Your task to perform on an android device: Open battery settings Image 0: 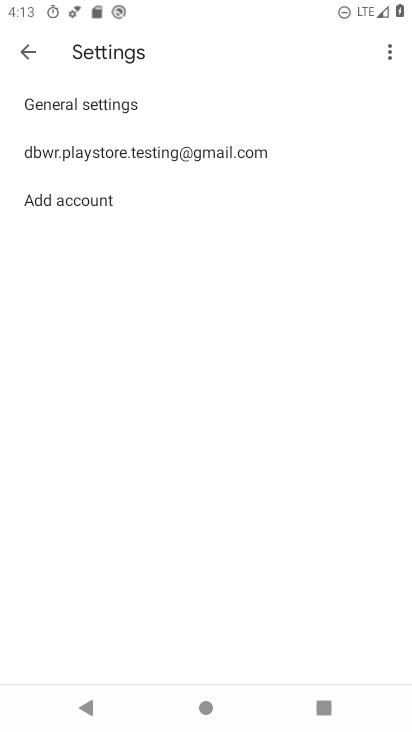
Step 0: press home button
Your task to perform on an android device: Open battery settings Image 1: 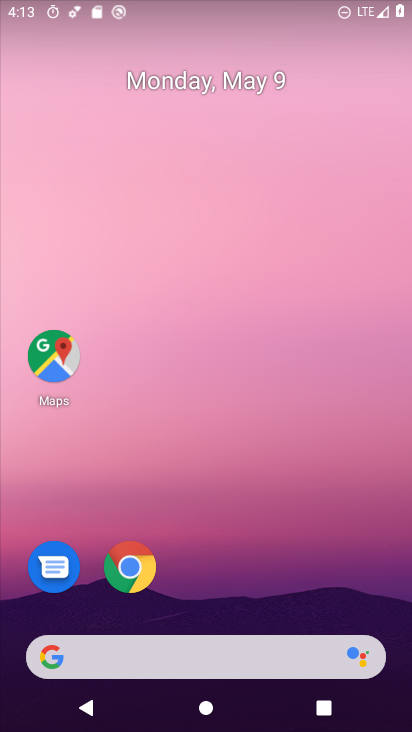
Step 1: drag from (236, 561) to (195, 177)
Your task to perform on an android device: Open battery settings Image 2: 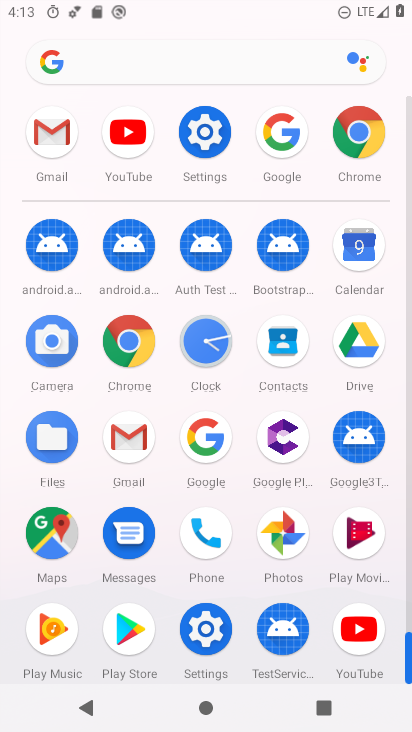
Step 2: click (208, 127)
Your task to perform on an android device: Open battery settings Image 3: 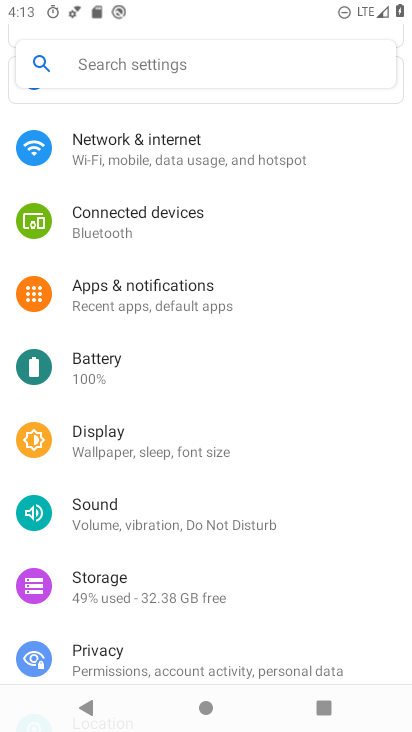
Step 3: click (103, 378)
Your task to perform on an android device: Open battery settings Image 4: 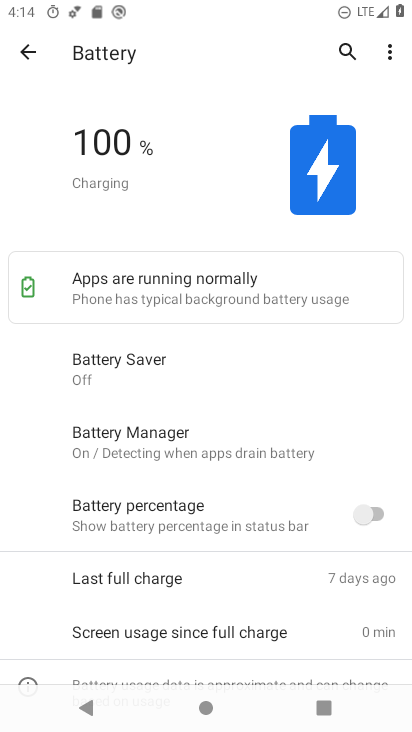
Step 4: task complete